Your task to perform on an android device: Toggle the flashlight Image 0: 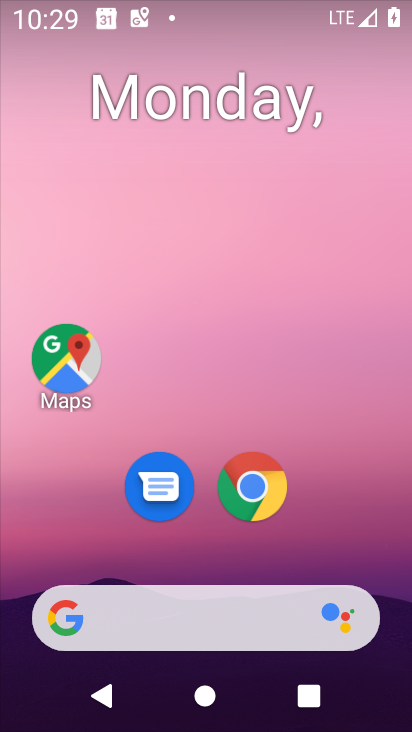
Step 0: drag from (338, 501) to (224, 7)
Your task to perform on an android device: Toggle the flashlight Image 1: 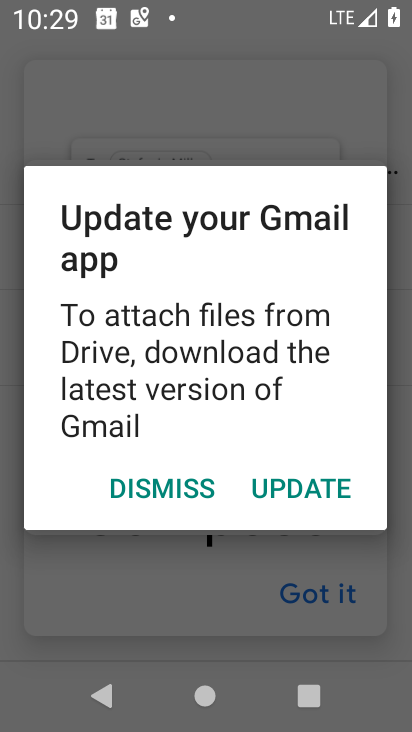
Step 1: press back button
Your task to perform on an android device: Toggle the flashlight Image 2: 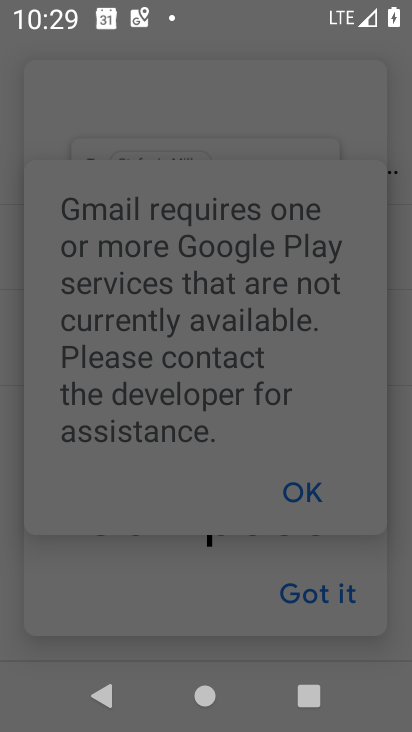
Step 2: press back button
Your task to perform on an android device: Toggle the flashlight Image 3: 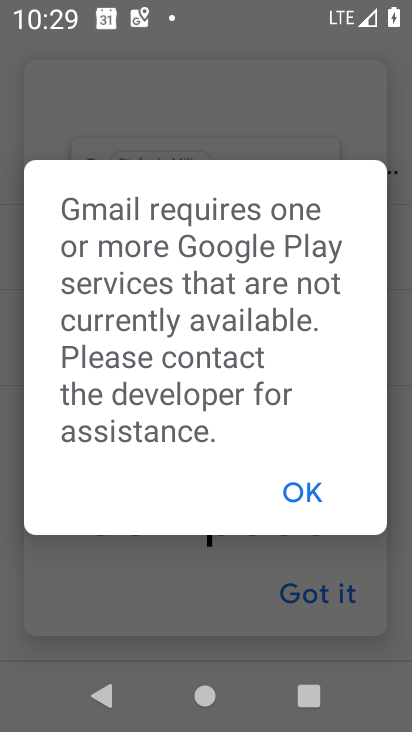
Step 3: press home button
Your task to perform on an android device: Toggle the flashlight Image 4: 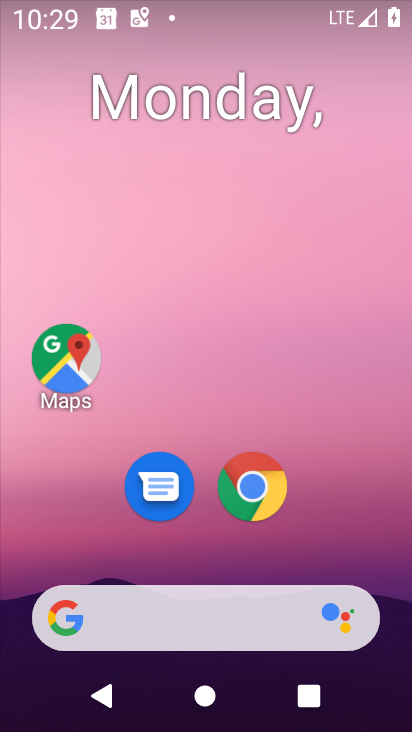
Step 4: drag from (348, 539) to (262, 23)
Your task to perform on an android device: Toggle the flashlight Image 5: 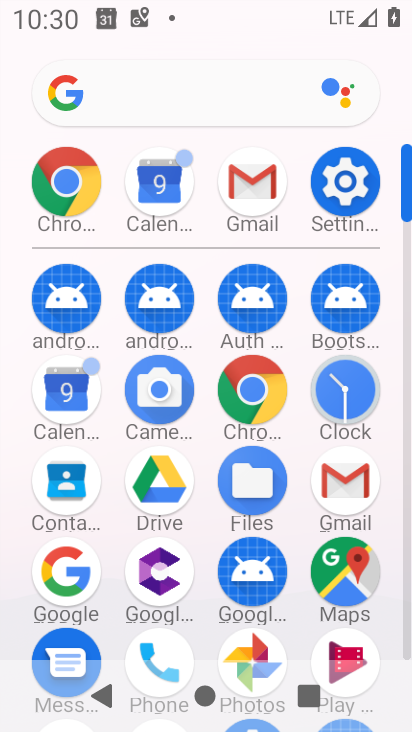
Step 5: click (343, 180)
Your task to perform on an android device: Toggle the flashlight Image 6: 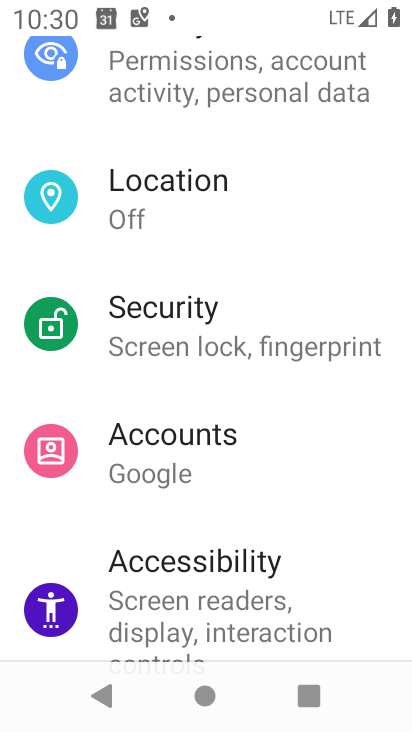
Step 6: drag from (242, 118) to (243, 491)
Your task to perform on an android device: Toggle the flashlight Image 7: 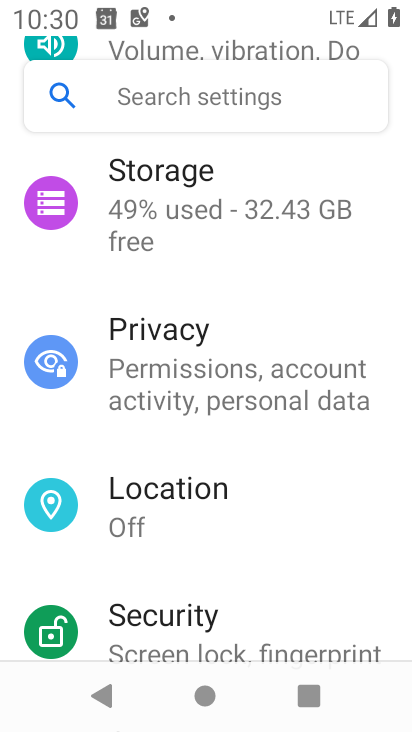
Step 7: drag from (275, 196) to (299, 521)
Your task to perform on an android device: Toggle the flashlight Image 8: 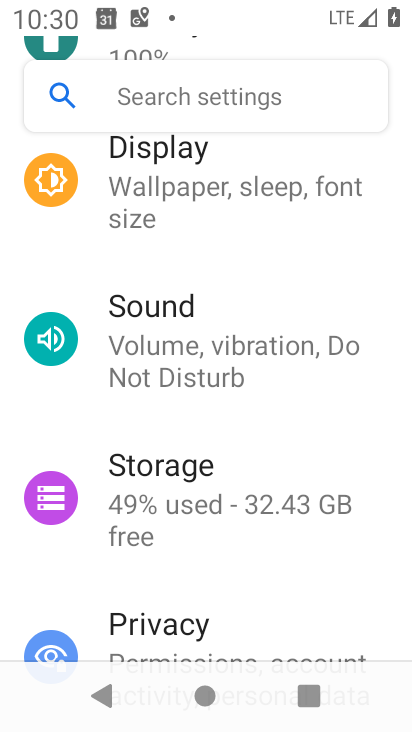
Step 8: drag from (285, 508) to (289, 168)
Your task to perform on an android device: Toggle the flashlight Image 9: 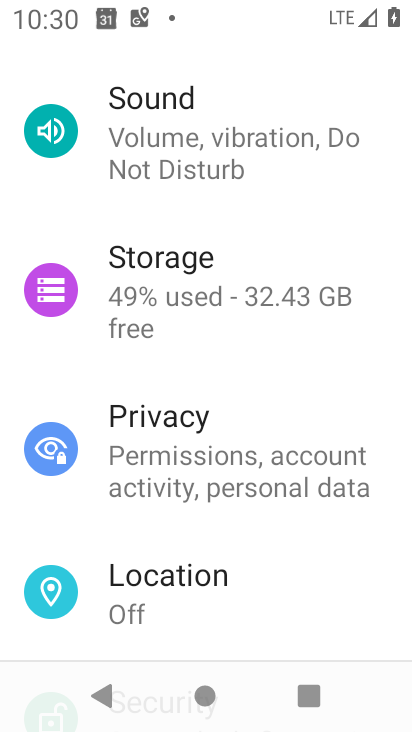
Step 9: drag from (302, 98) to (303, 511)
Your task to perform on an android device: Toggle the flashlight Image 10: 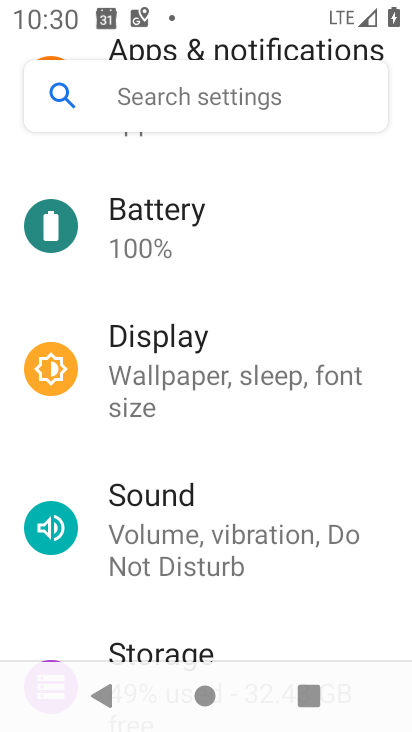
Step 10: drag from (242, 214) to (301, 588)
Your task to perform on an android device: Toggle the flashlight Image 11: 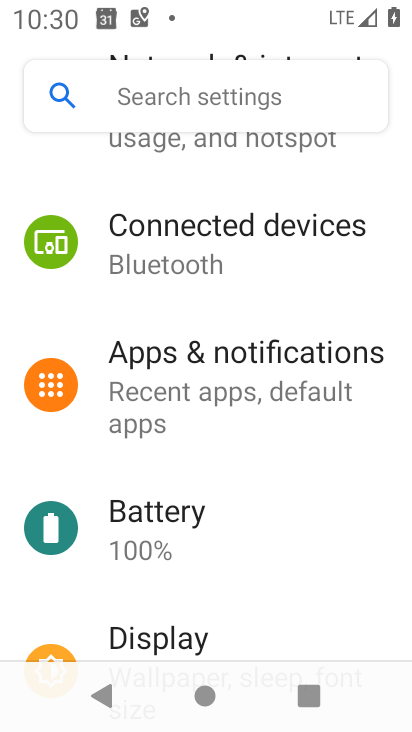
Step 11: drag from (316, 265) to (330, 591)
Your task to perform on an android device: Toggle the flashlight Image 12: 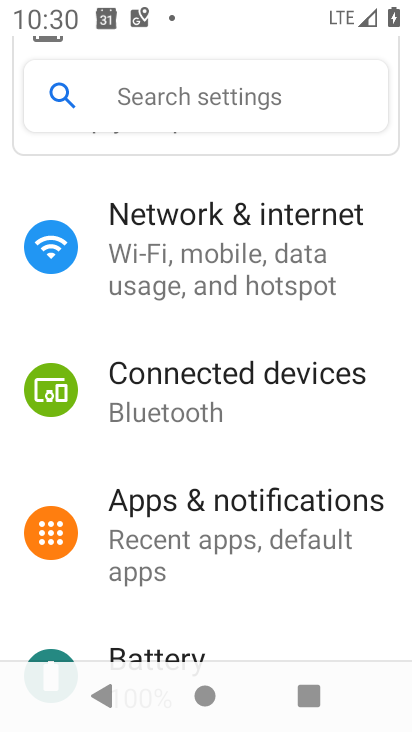
Step 12: drag from (290, 250) to (305, 568)
Your task to perform on an android device: Toggle the flashlight Image 13: 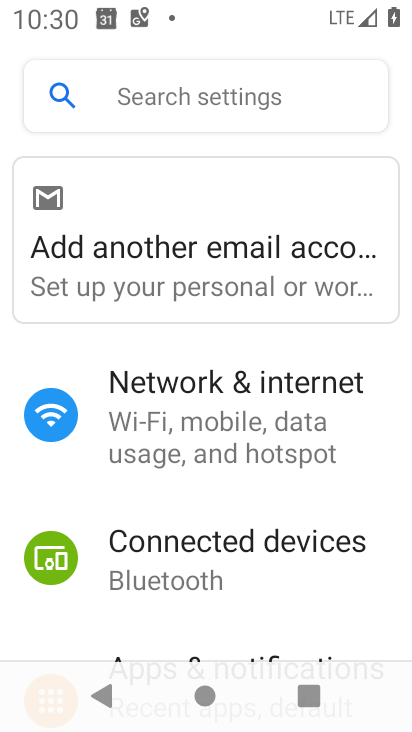
Step 13: drag from (286, 560) to (263, 127)
Your task to perform on an android device: Toggle the flashlight Image 14: 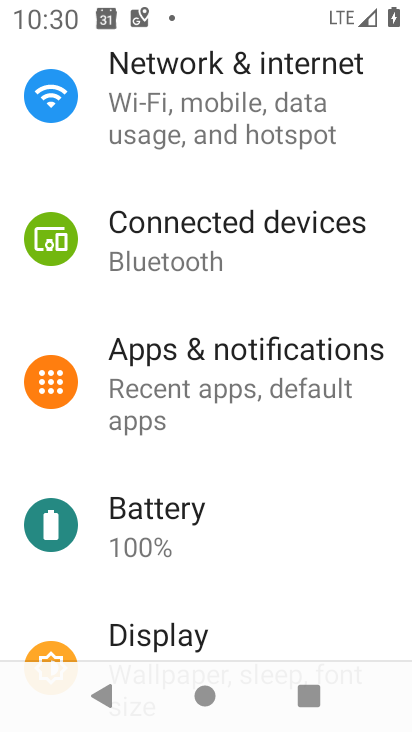
Step 14: drag from (323, 316) to (326, 147)
Your task to perform on an android device: Toggle the flashlight Image 15: 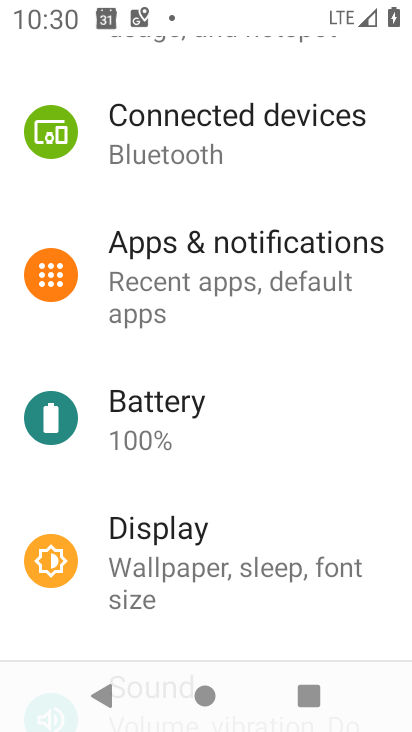
Step 15: drag from (207, 503) to (256, 93)
Your task to perform on an android device: Toggle the flashlight Image 16: 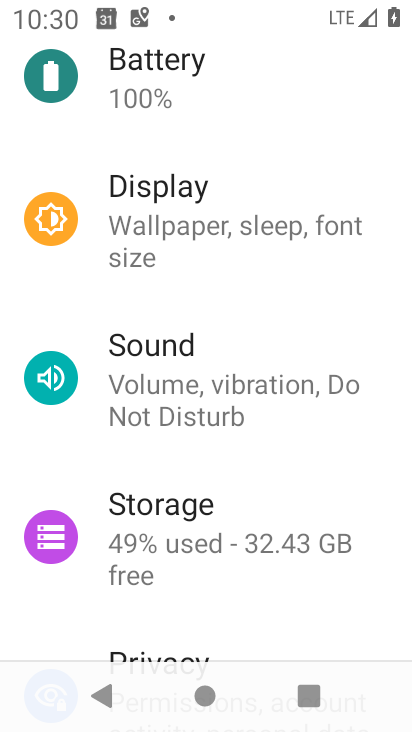
Step 16: drag from (256, 437) to (268, 119)
Your task to perform on an android device: Toggle the flashlight Image 17: 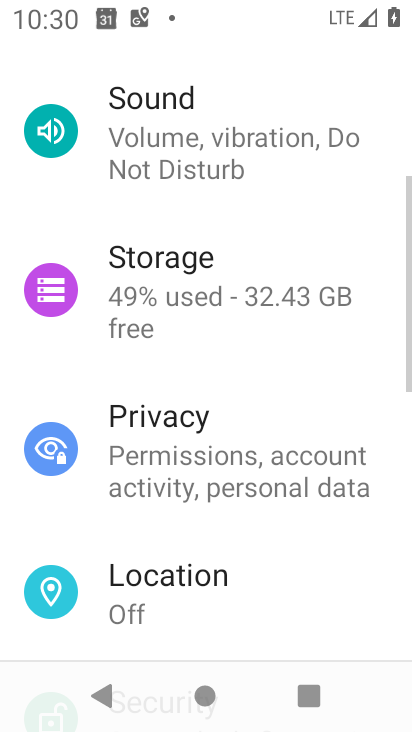
Step 17: drag from (268, 124) to (272, 559)
Your task to perform on an android device: Toggle the flashlight Image 18: 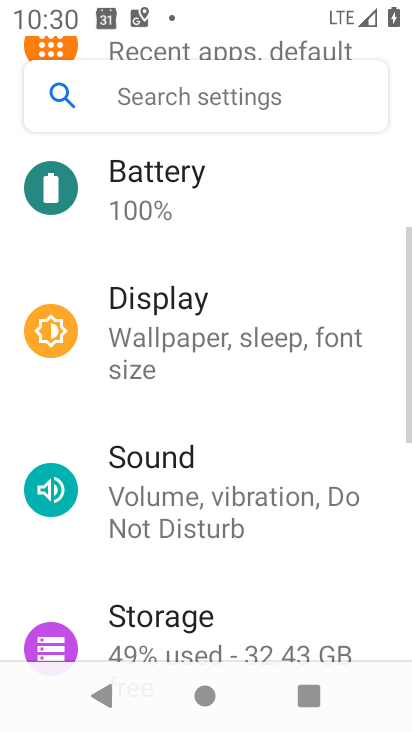
Step 18: drag from (252, 237) to (252, 558)
Your task to perform on an android device: Toggle the flashlight Image 19: 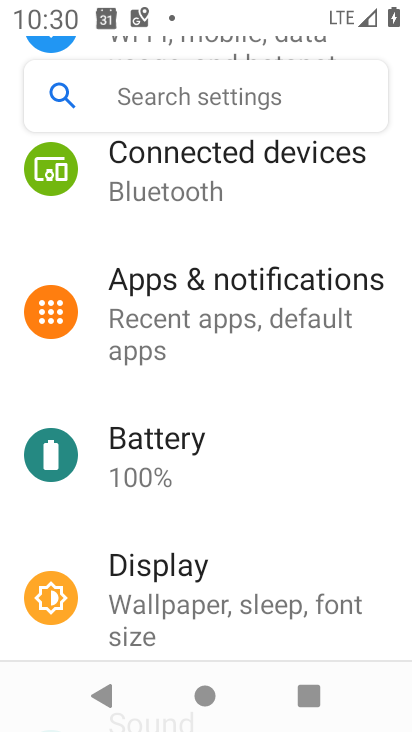
Step 19: drag from (250, 213) to (259, 534)
Your task to perform on an android device: Toggle the flashlight Image 20: 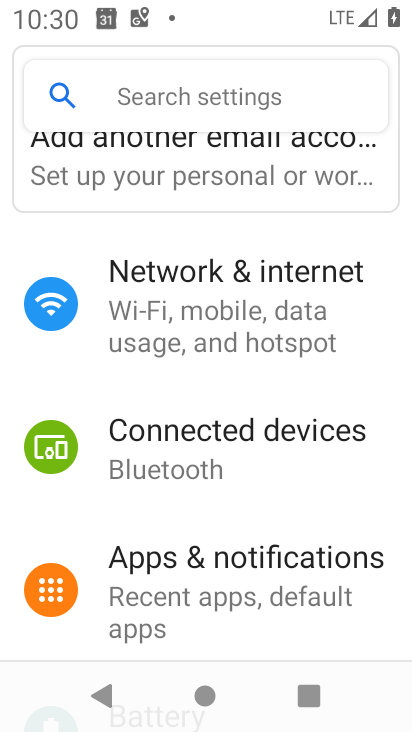
Step 20: click (242, 291)
Your task to perform on an android device: Toggle the flashlight Image 21: 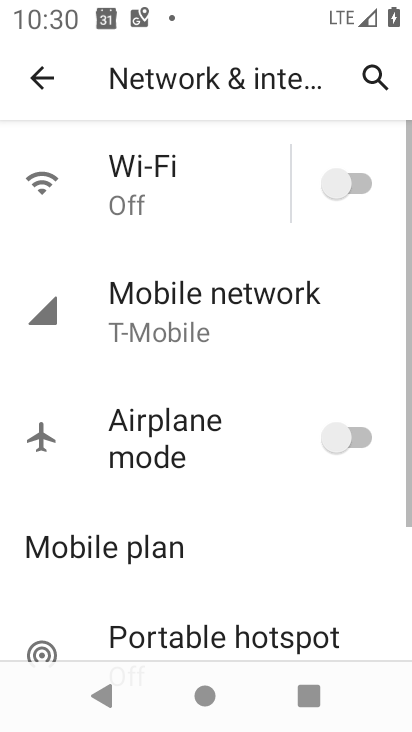
Step 21: drag from (249, 517) to (212, 121)
Your task to perform on an android device: Toggle the flashlight Image 22: 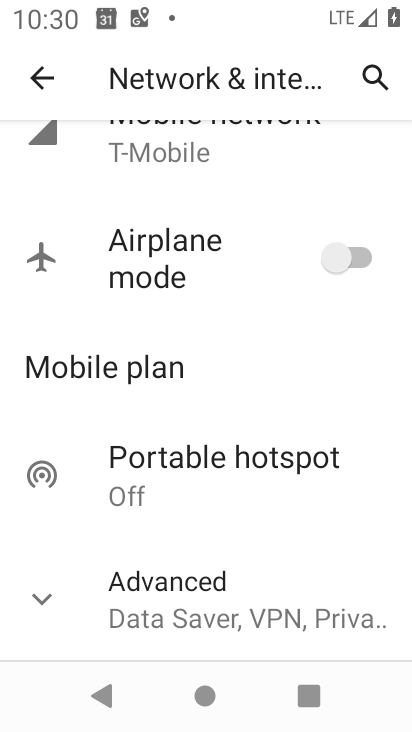
Step 22: drag from (235, 507) to (233, 176)
Your task to perform on an android device: Toggle the flashlight Image 23: 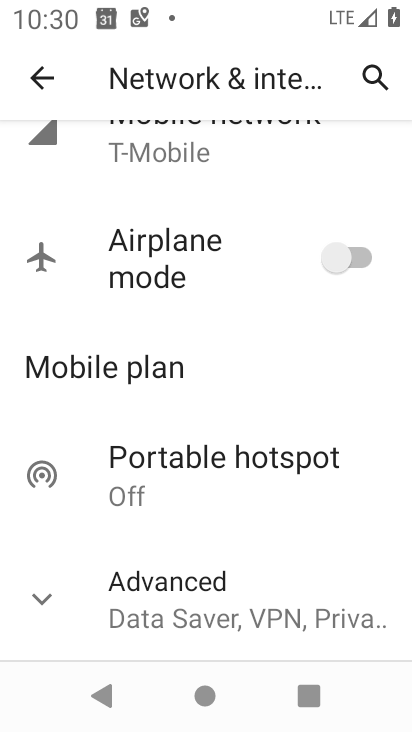
Step 23: click (36, 602)
Your task to perform on an android device: Toggle the flashlight Image 24: 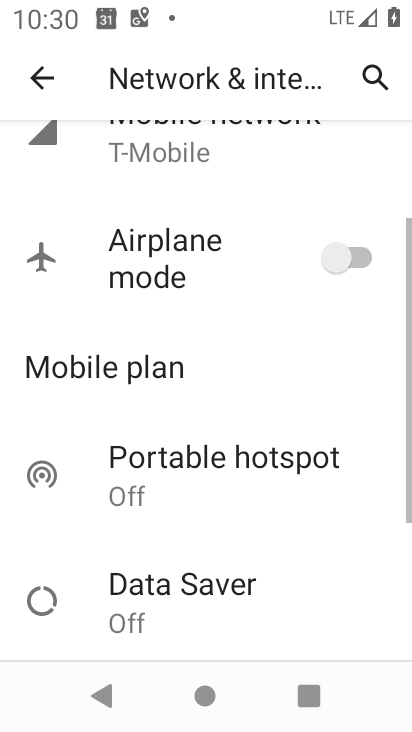
Step 24: task complete